Your task to perform on an android device: check out phone information Image 0: 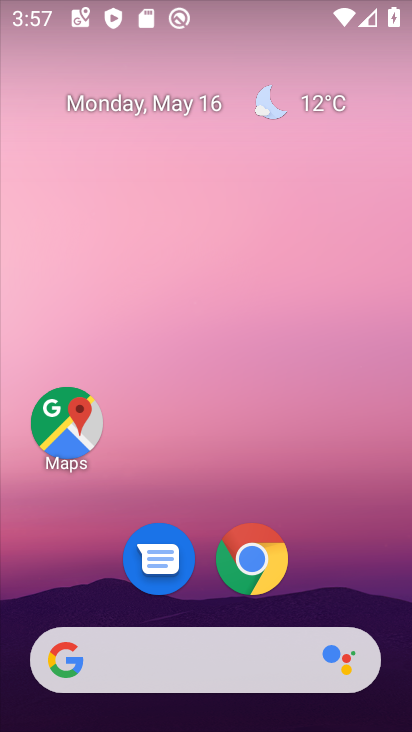
Step 0: drag from (300, 576) to (285, 232)
Your task to perform on an android device: check out phone information Image 1: 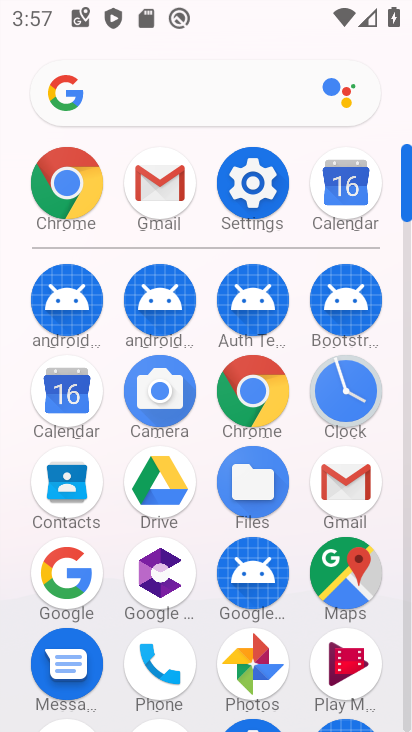
Step 1: click (250, 223)
Your task to perform on an android device: check out phone information Image 2: 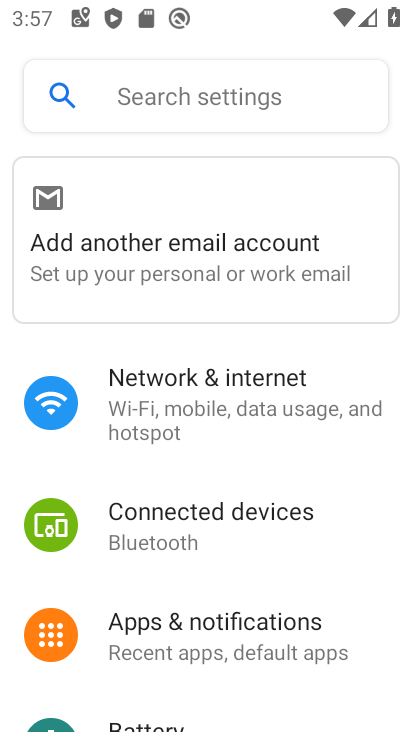
Step 2: drag from (232, 592) to (253, 207)
Your task to perform on an android device: check out phone information Image 3: 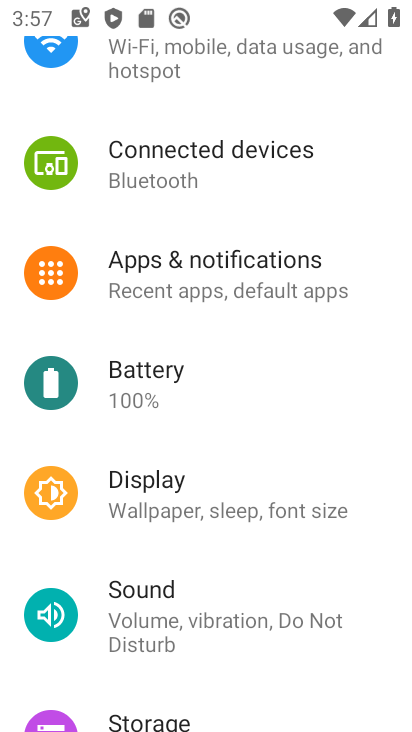
Step 3: drag from (214, 536) to (289, 95)
Your task to perform on an android device: check out phone information Image 4: 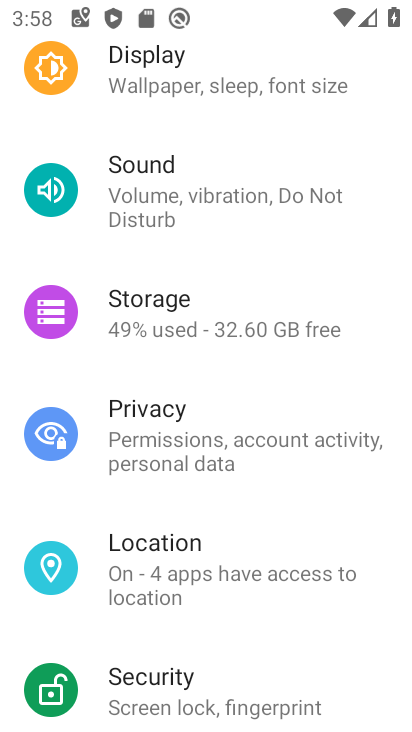
Step 4: drag from (274, 545) to (286, 218)
Your task to perform on an android device: check out phone information Image 5: 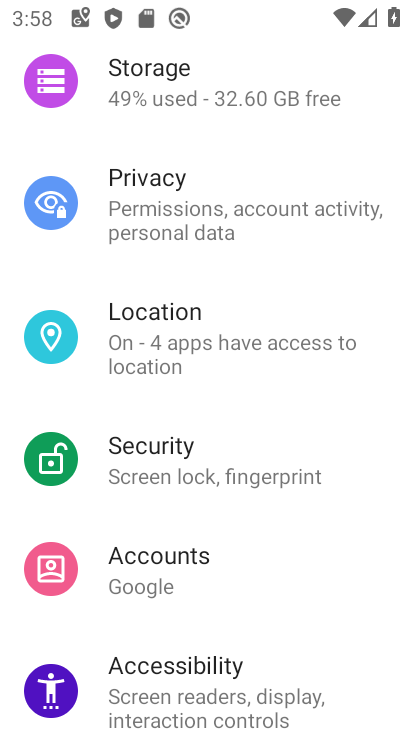
Step 5: drag from (211, 681) to (250, 229)
Your task to perform on an android device: check out phone information Image 6: 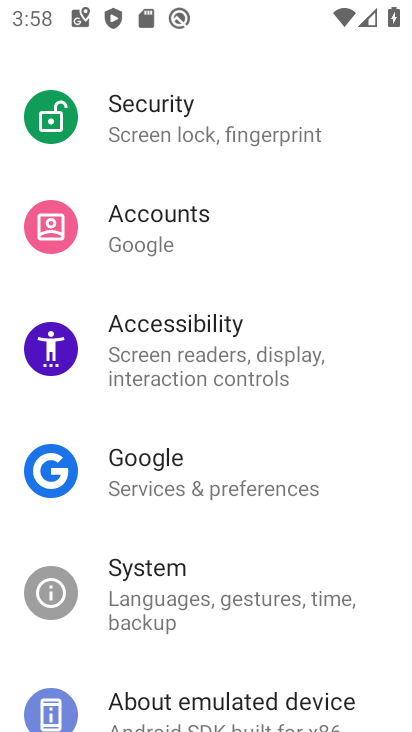
Step 6: drag from (251, 644) to (282, 430)
Your task to perform on an android device: check out phone information Image 7: 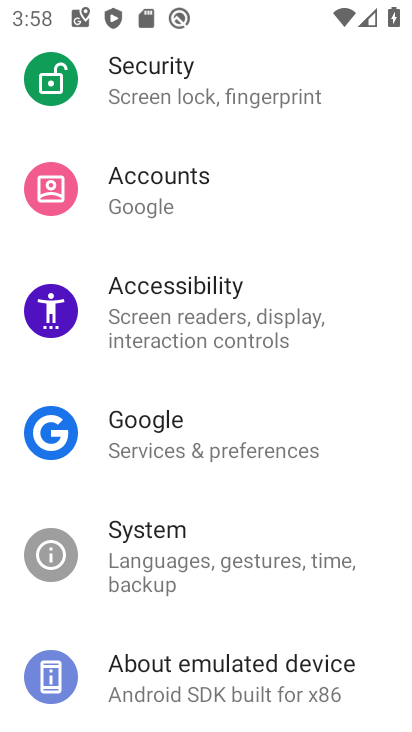
Step 7: click (234, 662)
Your task to perform on an android device: check out phone information Image 8: 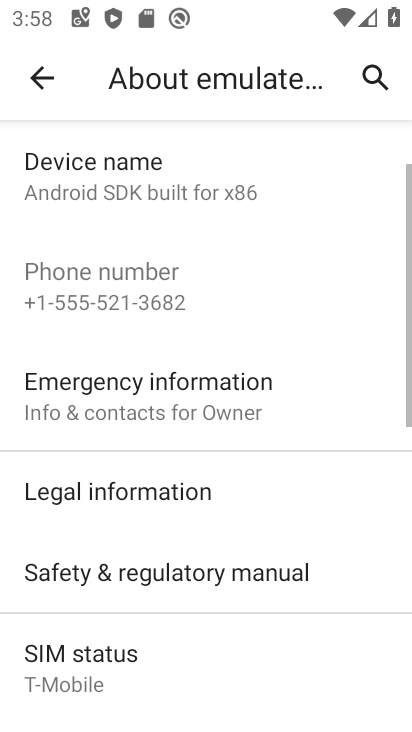
Step 8: drag from (190, 630) to (227, 173)
Your task to perform on an android device: check out phone information Image 9: 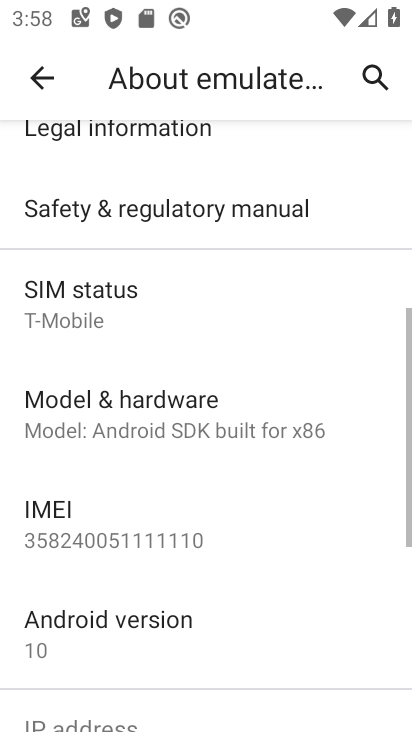
Step 9: click (218, 402)
Your task to perform on an android device: check out phone information Image 10: 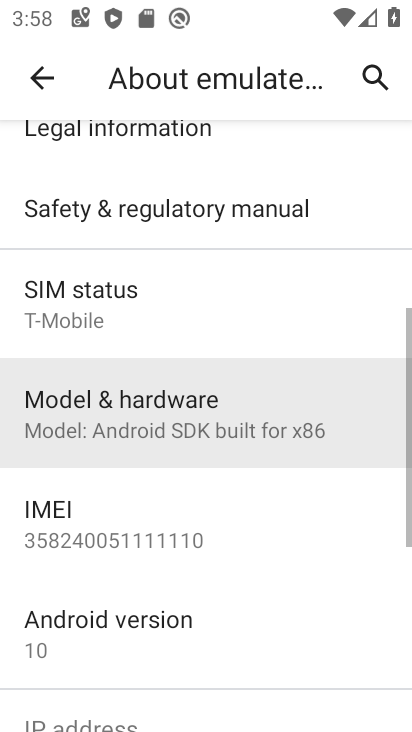
Step 10: click (218, 402)
Your task to perform on an android device: check out phone information Image 11: 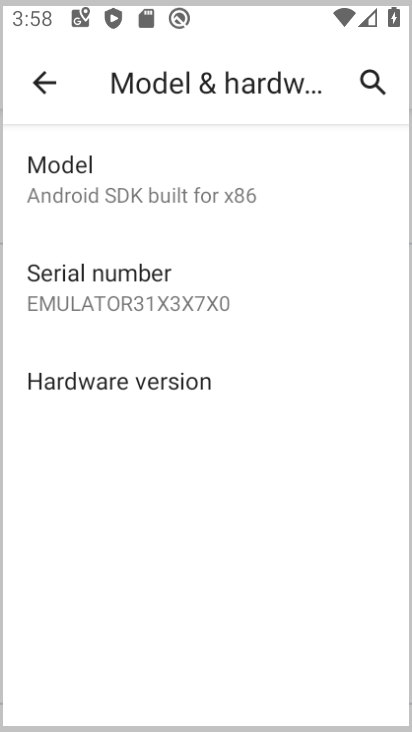
Step 11: click (218, 402)
Your task to perform on an android device: check out phone information Image 12: 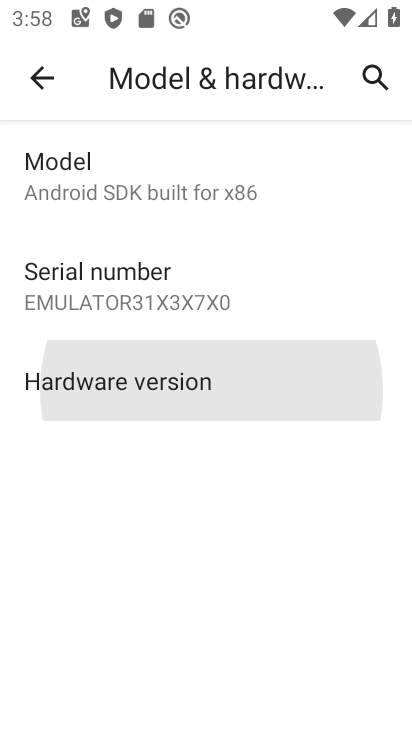
Step 12: click (218, 402)
Your task to perform on an android device: check out phone information Image 13: 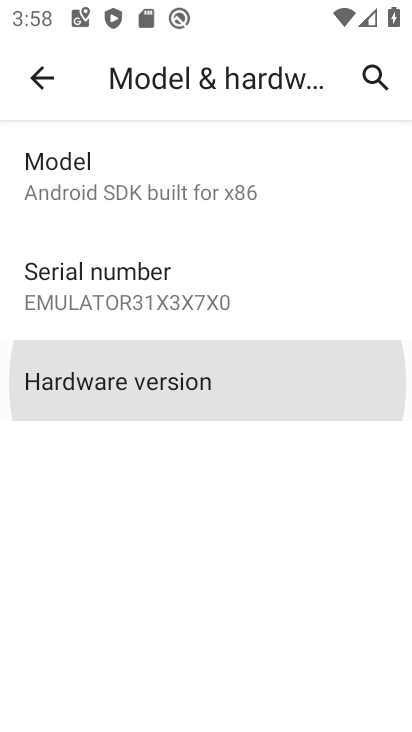
Step 13: click (218, 402)
Your task to perform on an android device: check out phone information Image 14: 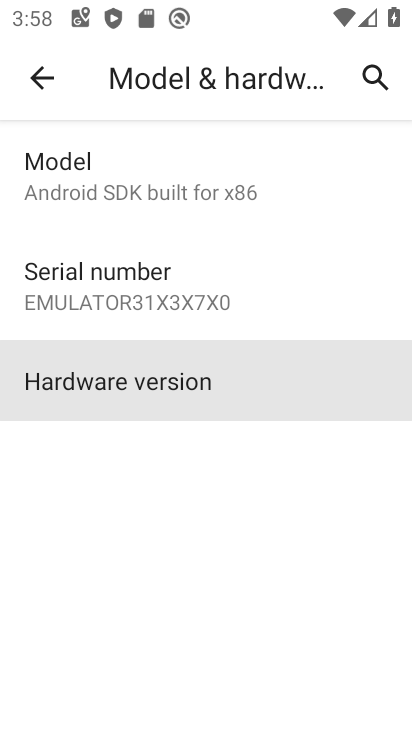
Step 14: click (218, 402)
Your task to perform on an android device: check out phone information Image 15: 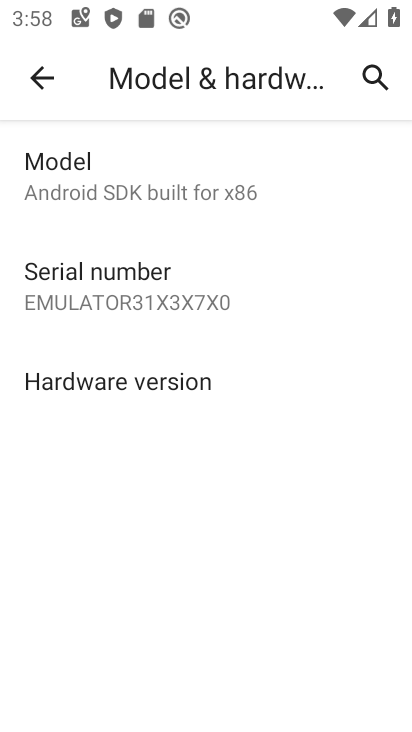
Step 15: click (195, 387)
Your task to perform on an android device: check out phone information Image 16: 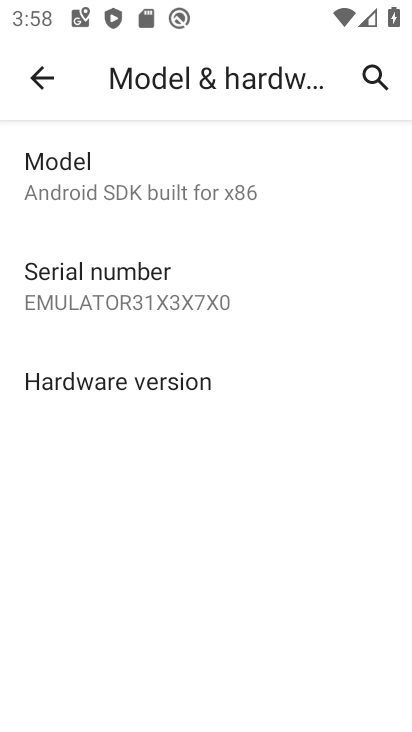
Step 16: click (195, 387)
Your task to perform on an android device: check out phone information Image 17: 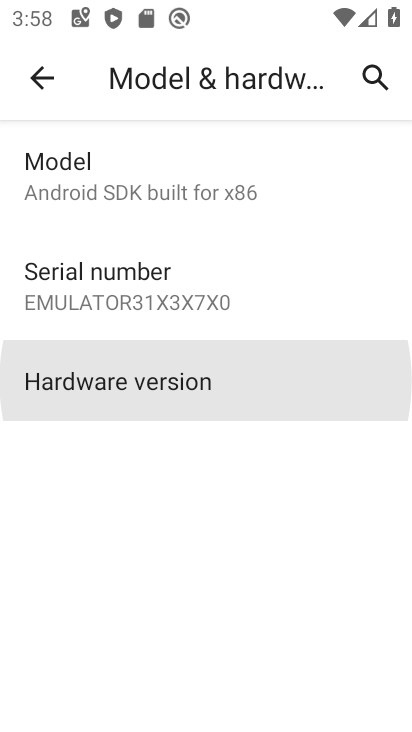
Step 17: click (195, 387)
Your task to perform on an android device: check out phone information Image 18: 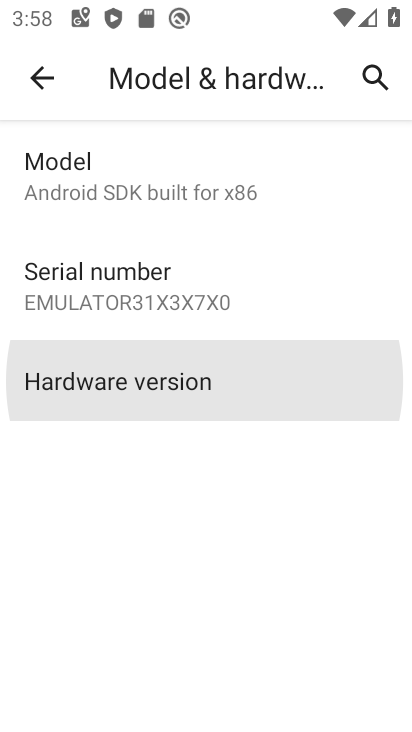
Step 18: click (195, 387)
Your task to perform on an android device: check out phone information Image 19: 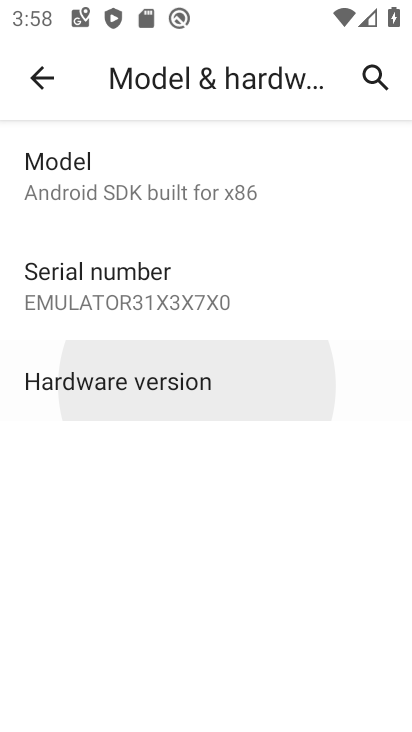
Step 19: click (195, 387)
Your task to perform on an android device: check out phone information Image 20: 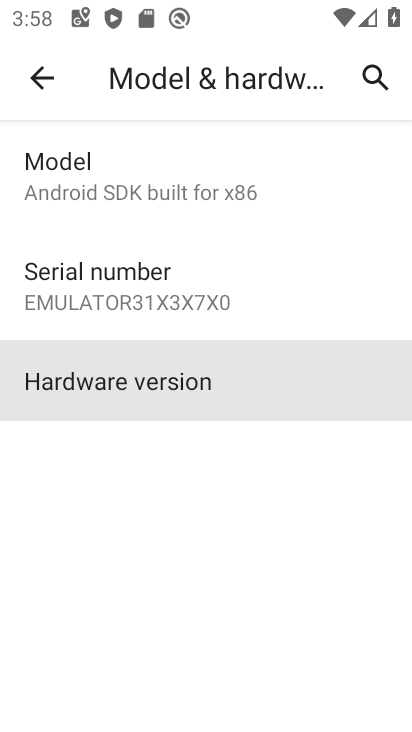
Step 20: click (195, 387)
Your task to perform on an android device: check out phone information Image 21: 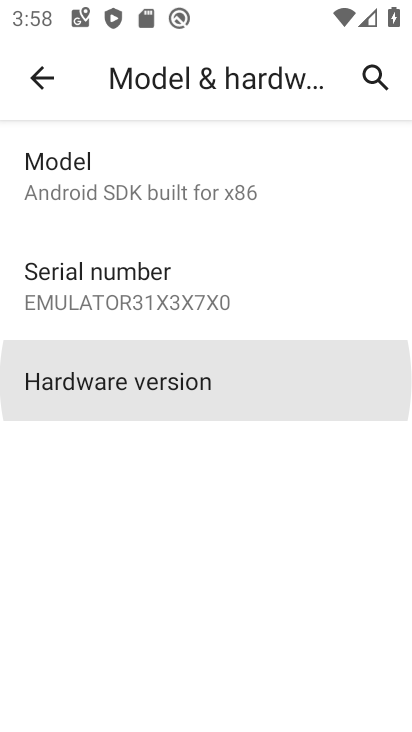
Step 21: click (195, 387)
Your task to perform on an android device: check out phone information Image 22: 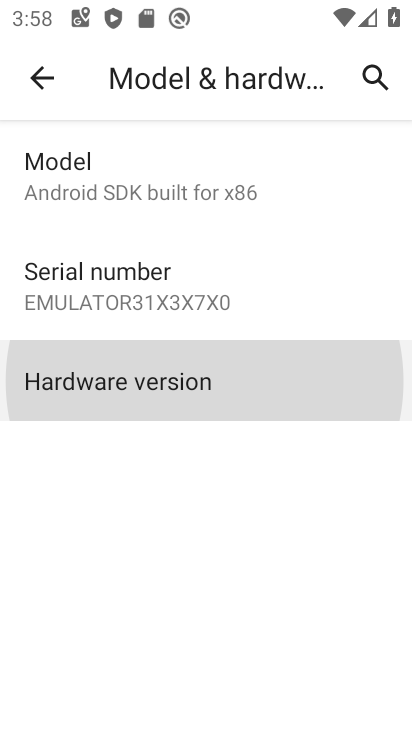
Step 22: click (195, 387)
Your task to perform on an android device: check out phone information Image 23: 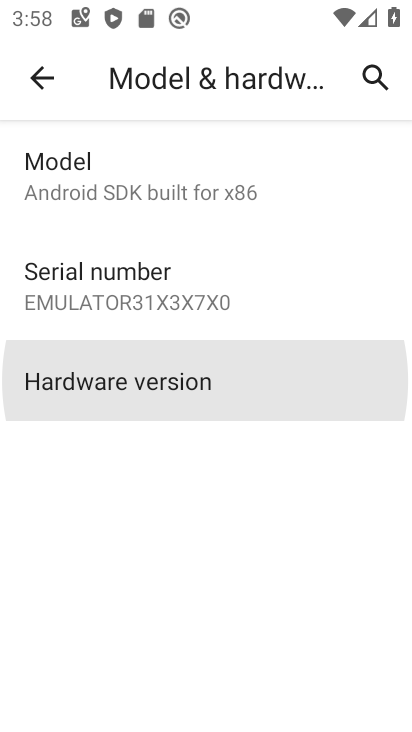
Step 23: click (195, 387)
Your task to perform on an android device: check out phone information Image 24: 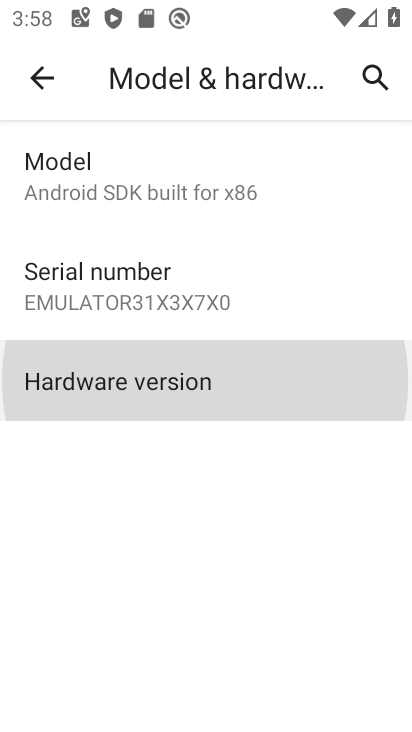
Step 24: click (195, 387)
Your task to perform on an android device: check out phone information Image 25: 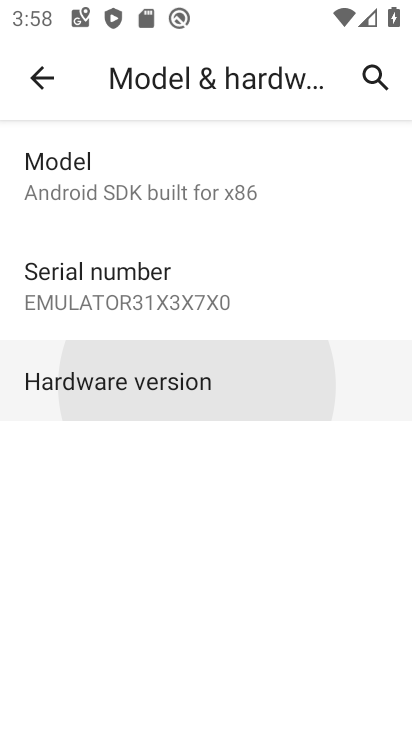
Step 25: click (195, 387)
Your task to perform on an android device: check out phone information Image 26: 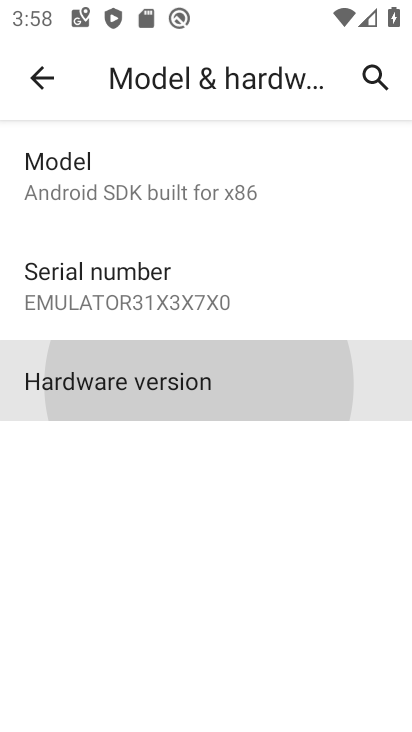
Step 26: click (195, 387)
Your task to perform on an android device: check out phone information Image 27: 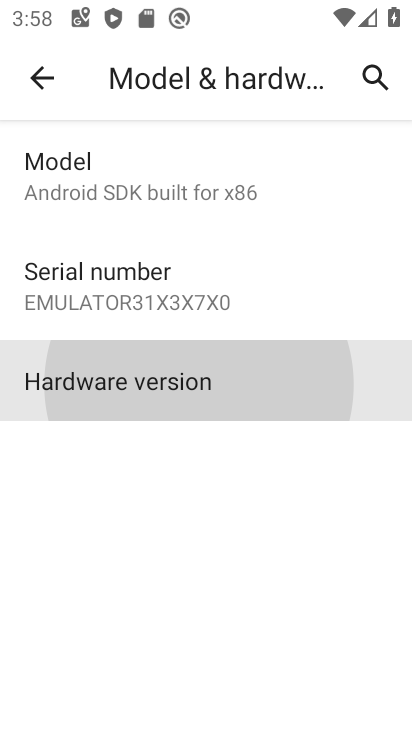
Step 27: click (195, 387)
Your task to perform on an android device: check out phone information Image 28: 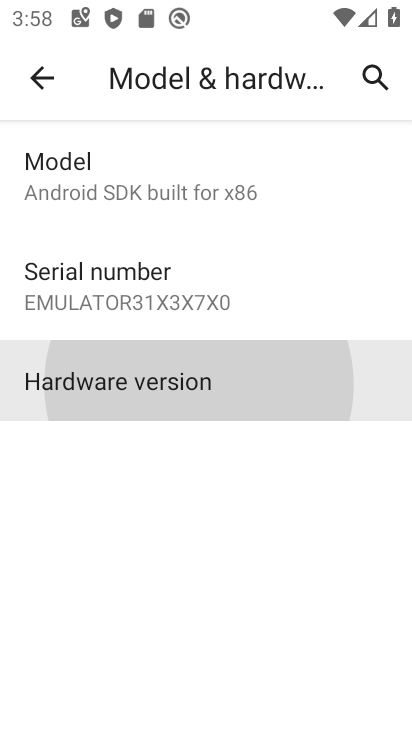
Step 28: click (195, 387)
Your task to perform on an android device: check out phone information Image 29: 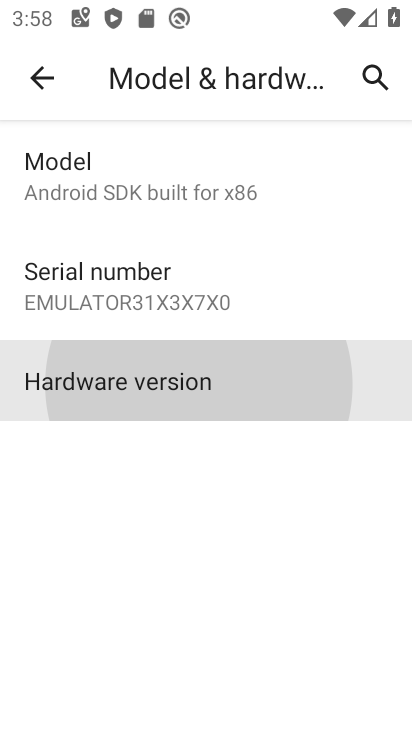
Step 29: click (195, 387)
Your task to perform on an android device: check out phone information Image 30: 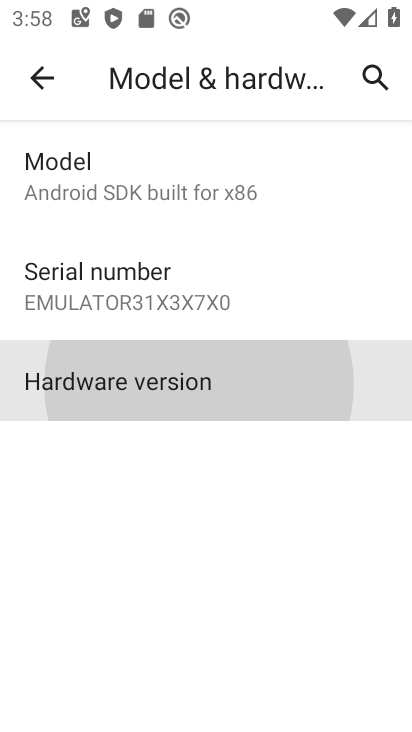
Step 30: click (195, 387)
Your task to perform on an android device: check out phone information Image 31: 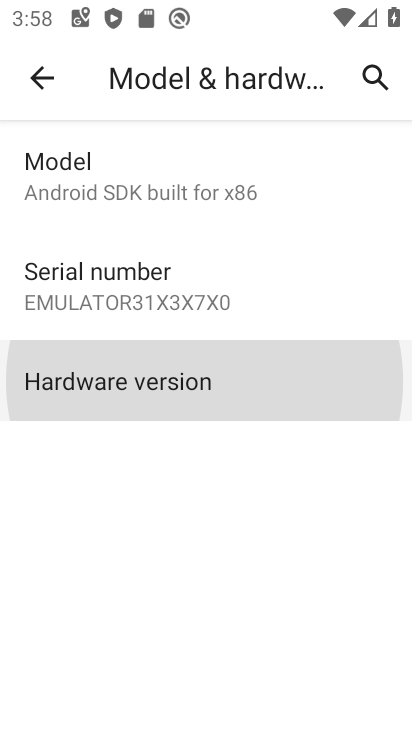
Step 31: click (195, 387)
Your task to perform on an android device: check out phone information Image 32: 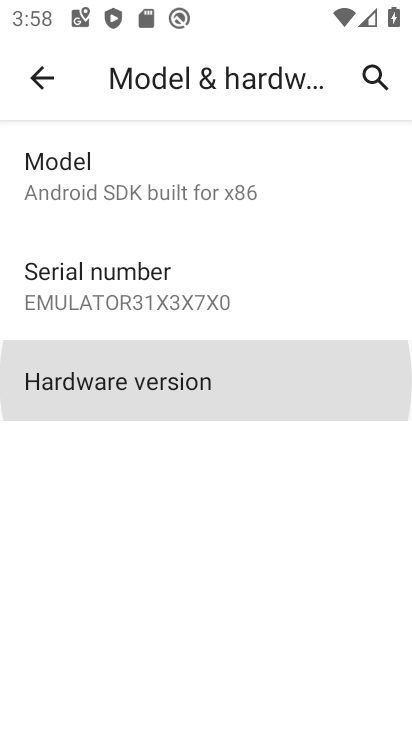
Step 32: click (195, 387)
Your task to perform on an android device: check out phone information Image 33: 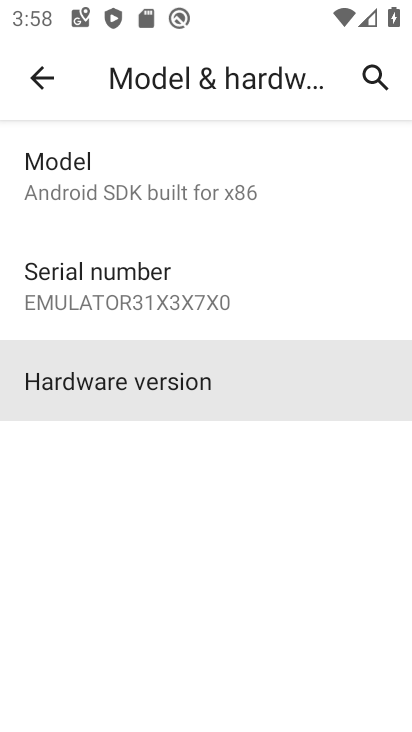
Step 33: click (195, 387)
Your task to perform on an android device: check out phone information Image 34: 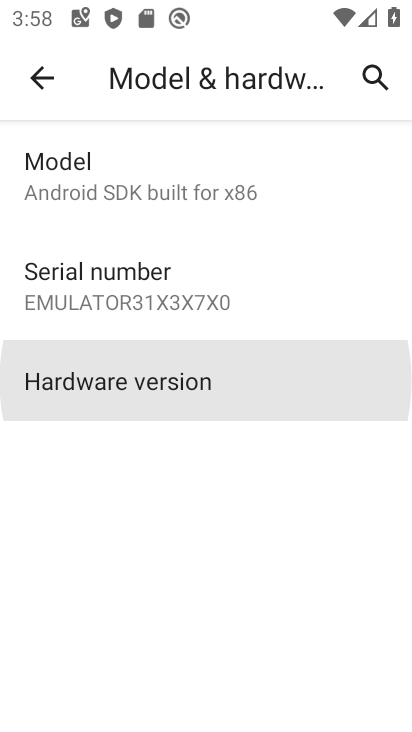
Step 34: click (195, 387)
Your task to perform on an android device: check out phone information Image 35: 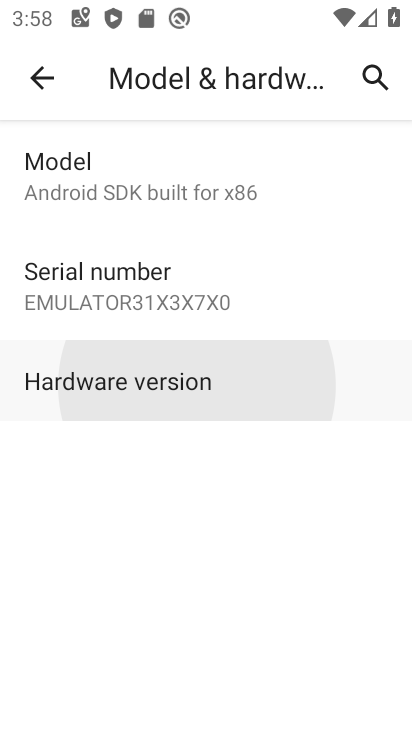
Step 35: click (195, 387)
Your task to perform on an android device: check out phone information Image 36: 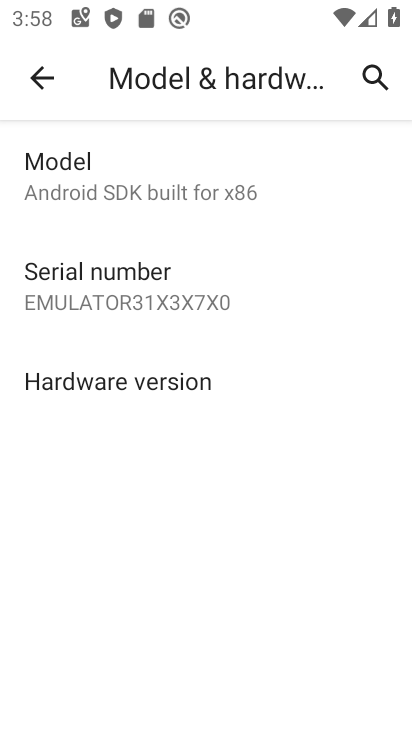
Step 36: click (178, 299)
Your task to perform on an android device: check out phone information Image 37: 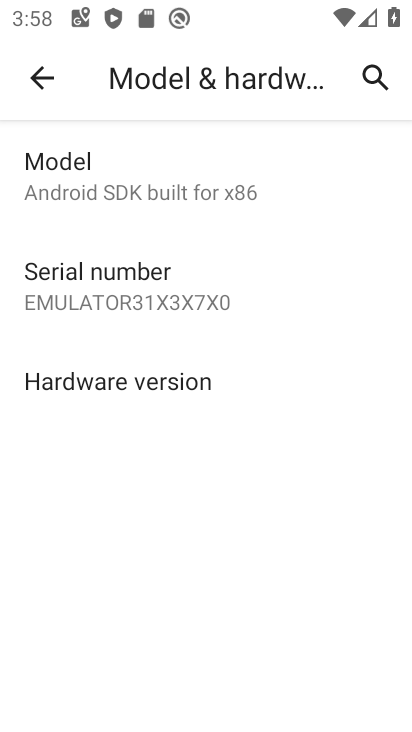
Step 37: click (178, 299)
Your task to perform on an android device: check out phone information Image 38: 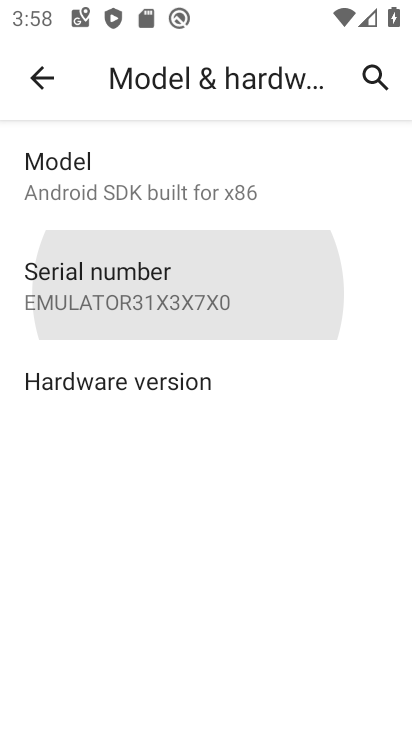
Step 38: click (178, 299)
Your task to perform on an android device: check out phone information Image 39: 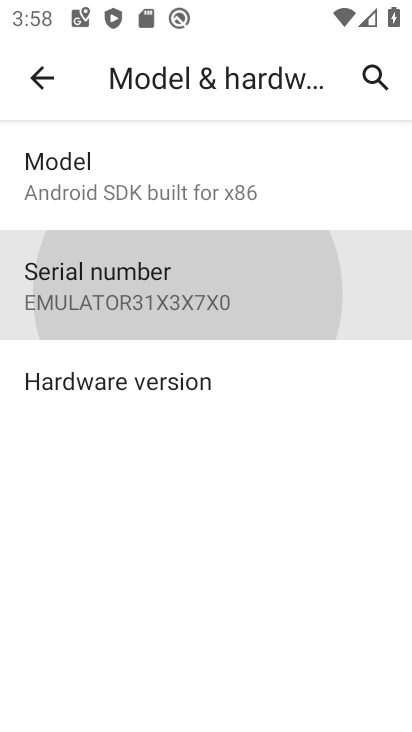
Step 39: click (178, 299)
Your task to perform on an android device: check out phone information Image 40: 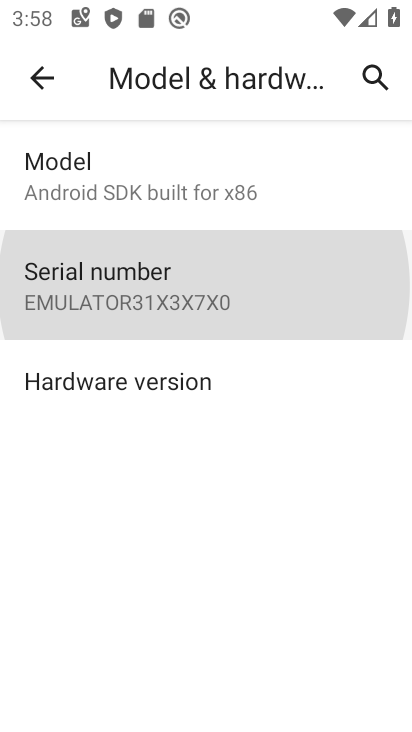
Step 40: click (178, 299)
Your task to perform on an android device: check out phone information Image 41: 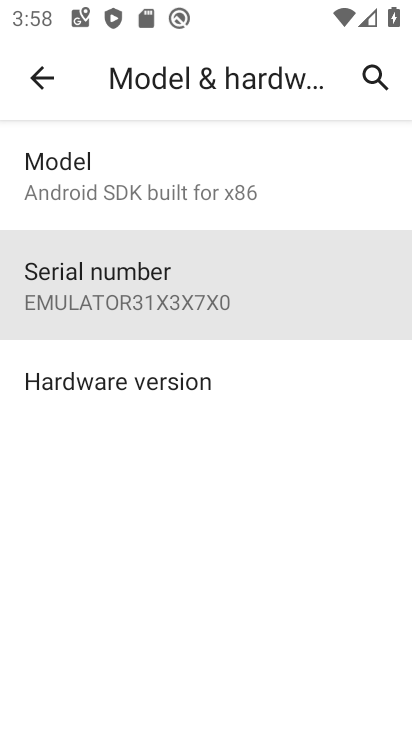
Step 41: click (178, 299)
Your task to perform on an android device: check out phone information Image 42: 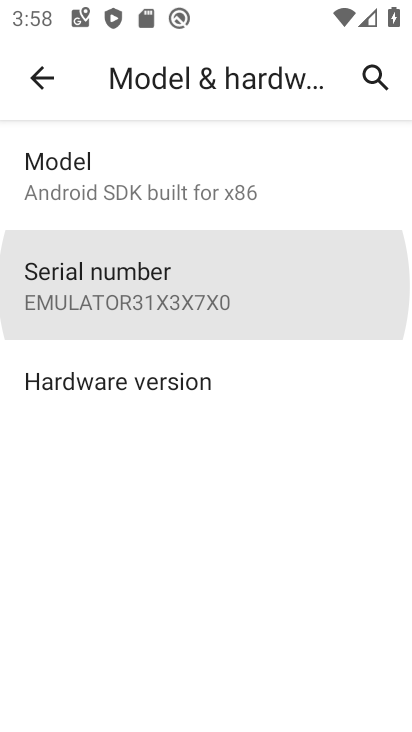
Step 42: click (178, 299)
Your task to perform on an android device: check out phone information Image 43: 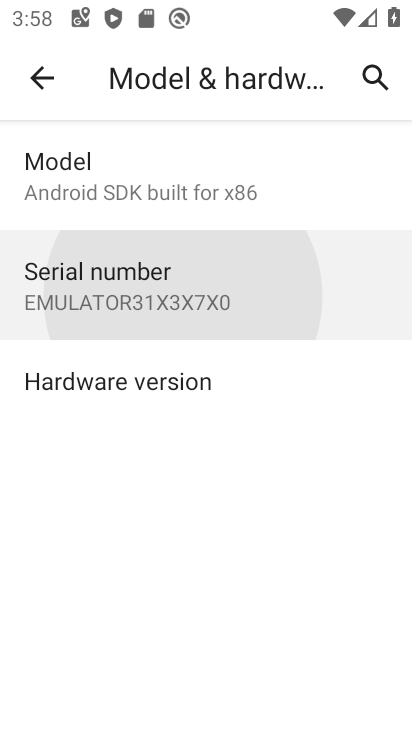
Step 43: click (178, 299)
Your task to perform on an android device: check out phone information Image 44: 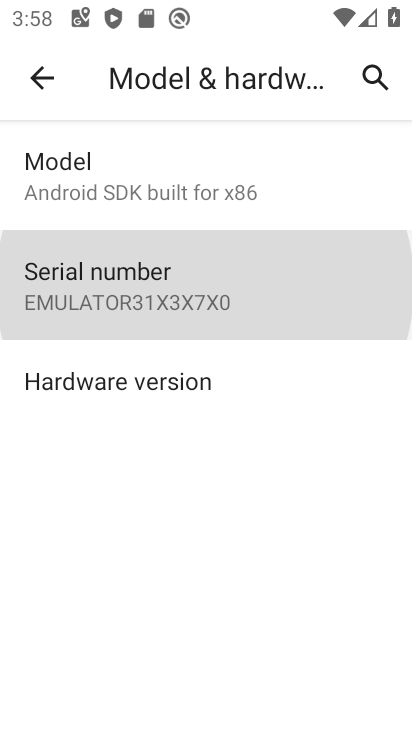
Step 44: click (178, 299)
Your task to perform on an android device: check out phone information Image 45: 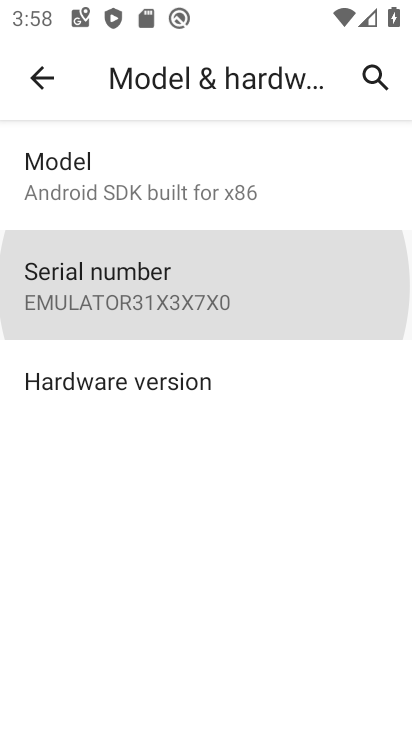
Step 45: click (178, 299)
Your task to perform on an android device: check out phone information Image 46: 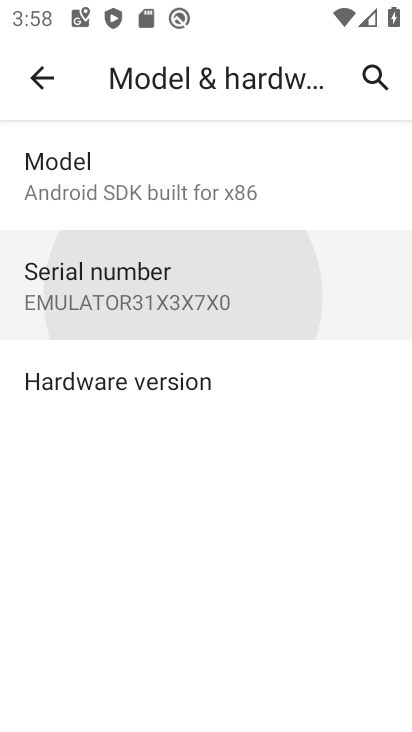
Step 46: click (178, 299)
Your task to perform on an android device: check out phone information Image 47: 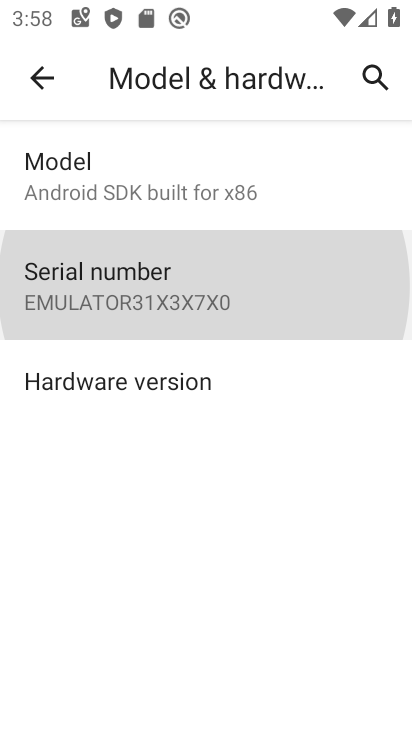
Step 47: click (178, 299)
Your task to perform on an android device: check out phone information Image 48: 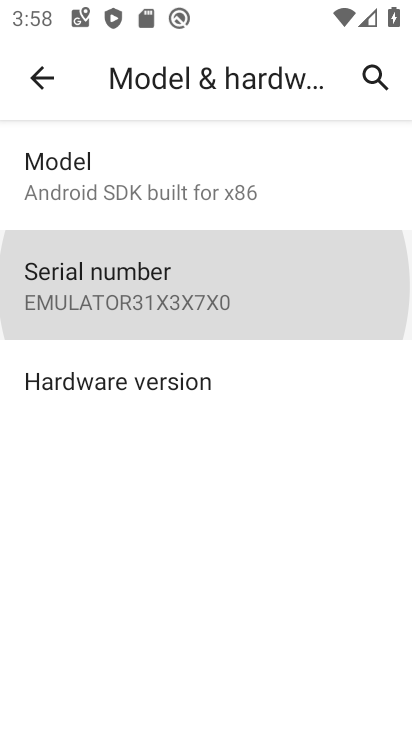
Step 48: click (178, 299)
Your task to perform on an android device: check out phone information Image 49: 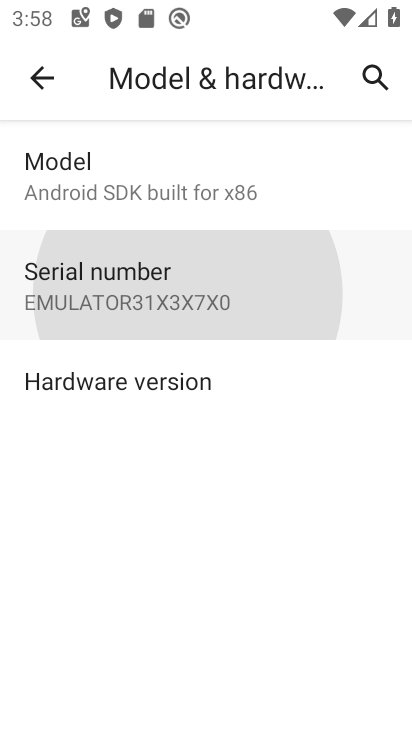
Step 49: click (178, 299)
Your task to perform on an android device: check out phone information Image 50: 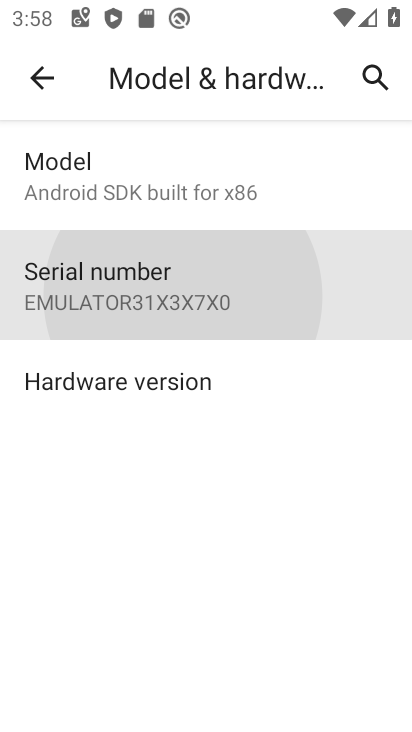
Step 50: click (178, 299)
Your task to perform on an android device: check out phone information Image 51: 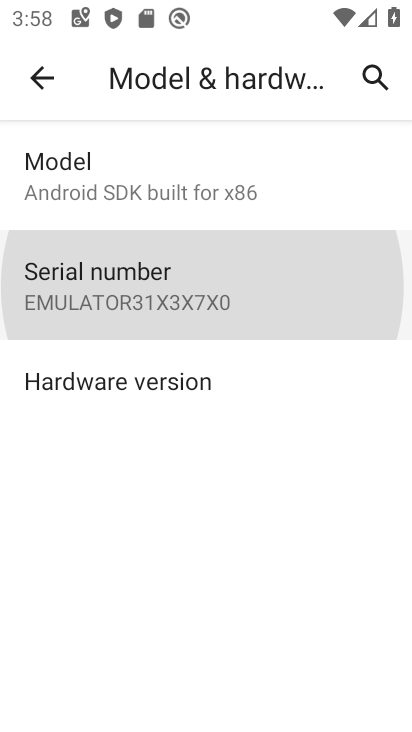
Step 51: click (178, 299)
Your task to perform on an android device: check out phone information Image 52: 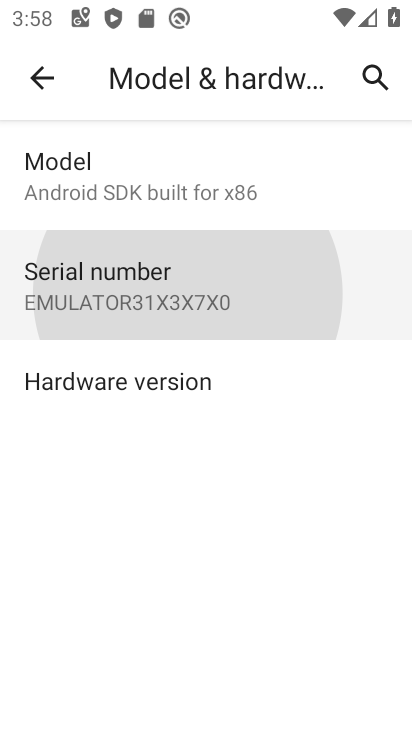
Step 52: click (178, 299)
Your task to perform on an android device: check out phone information Image 53: 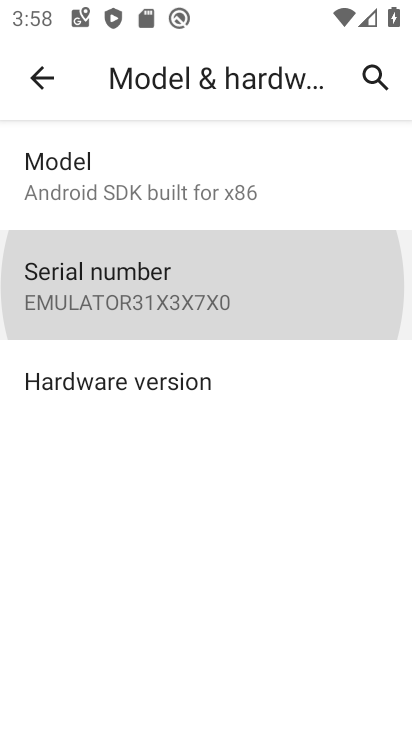
Step 53: click (178, 299)
Your task to perform on an android device: check out phone information Image 54: 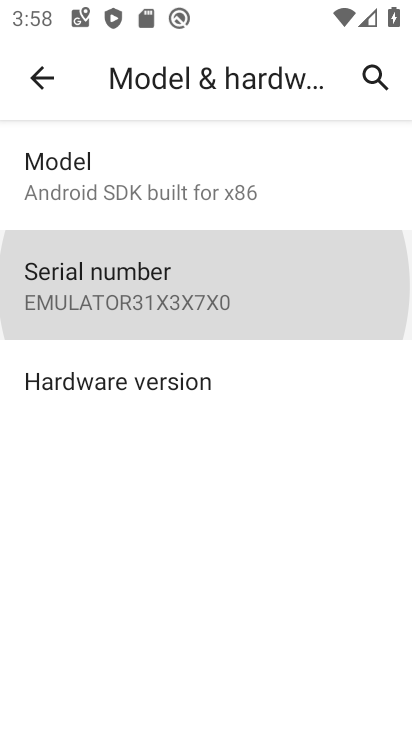
Step 54: click (178, 299)
Your task to perform on an android device: check out phone information Image 55: 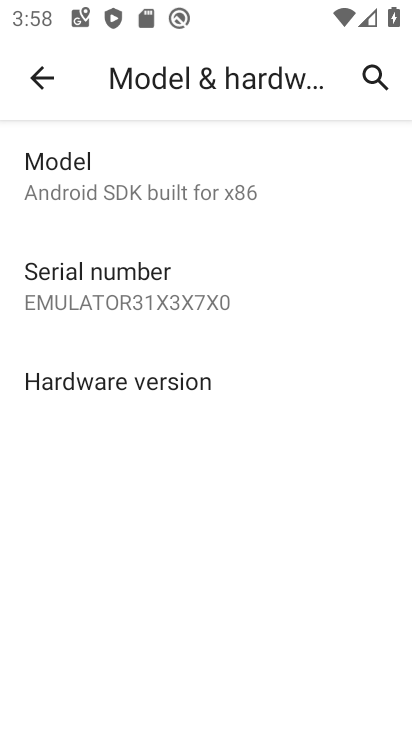
Step 55: task complete